Your task to perform on an android device: create a new album in the google photos Image 0: 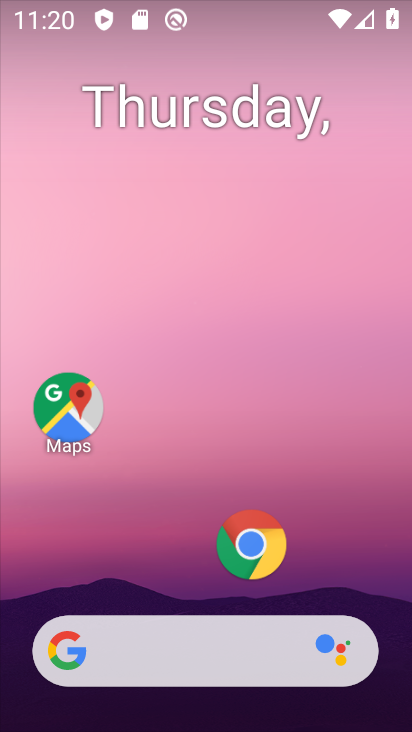
Step 0: drag from (185, 605) to (80, 31)
Your task to perform on an android device: create a new album in the google photos Image 1: 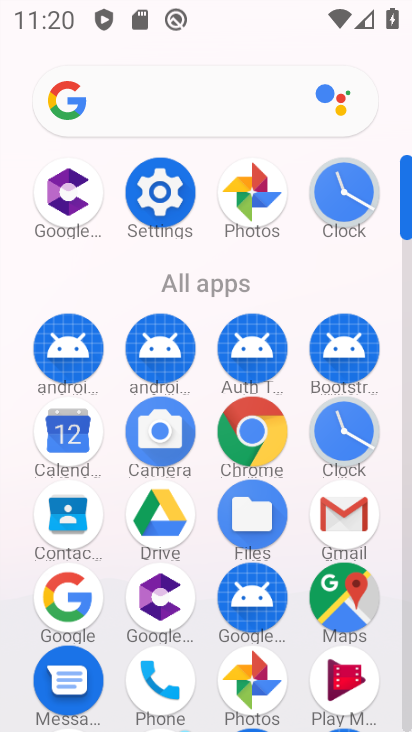
Step 1: click (257, 202)
Your task to perform on an android device: create a new album in the google photos Image 2: 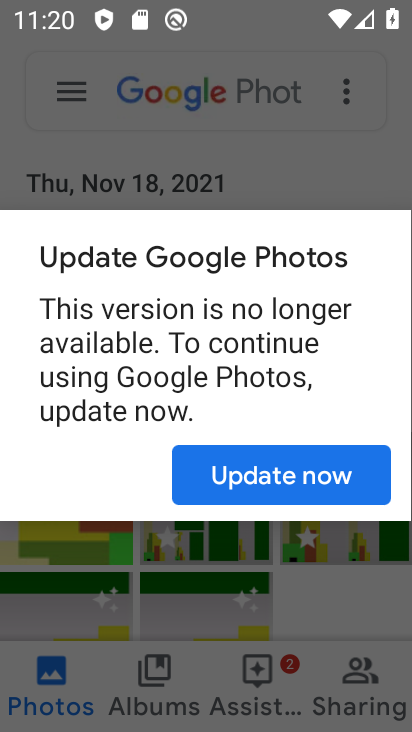
Step 2: click (327, 472)
Your task to perform on an android device: create a new album in the google photos Image 3: 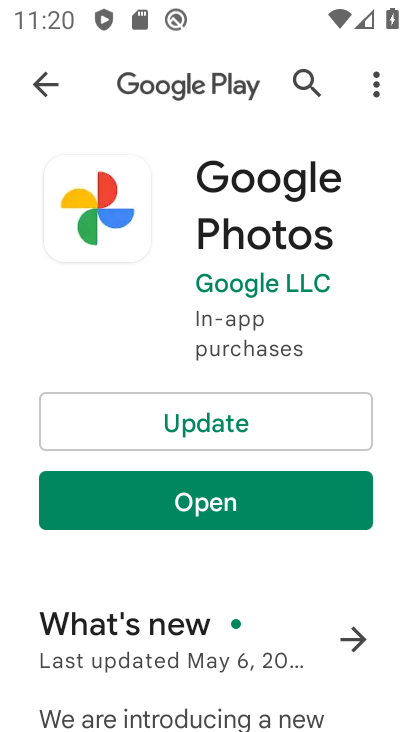
Step 3: click (297, 491)
Your task to perform on an android device: create a new album in the google photos Image 4: 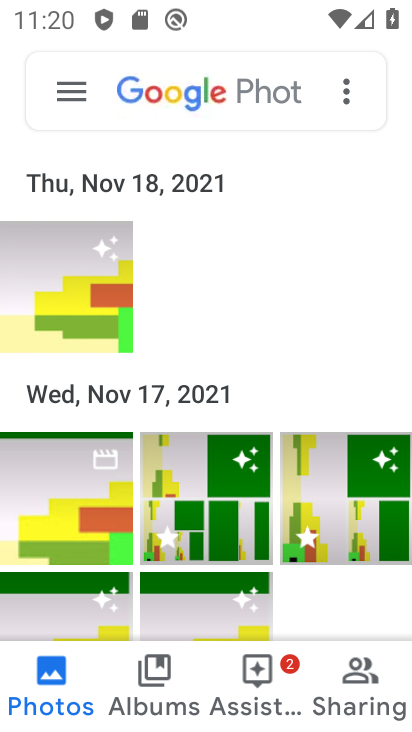
Step 4: click (72, 331)
Your task to perform on an android device: create a new album in the google photos Image 5: 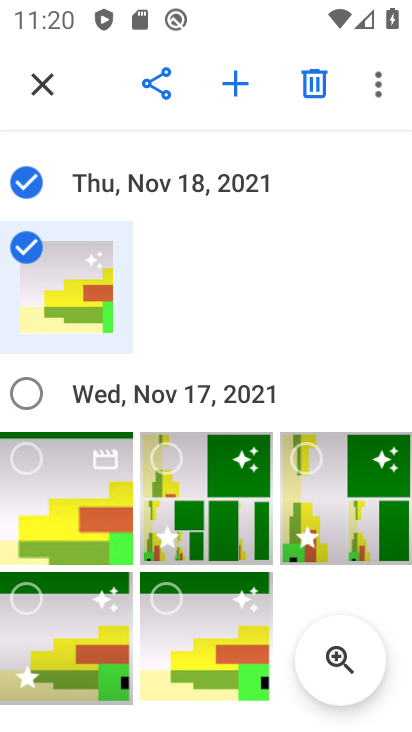
Step 5: click (61, 488)
Your task to perform on an android device: create a new album in the google photos Image 6: 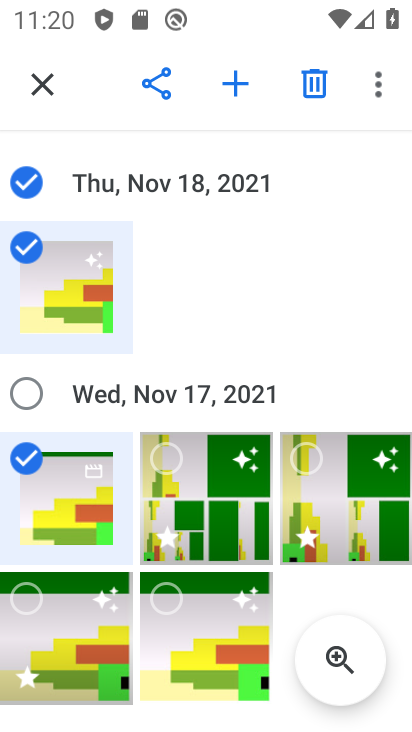
Step 6: click (225, 81)
Your task to perform on an android device: create a new album in the google photos Image 7: 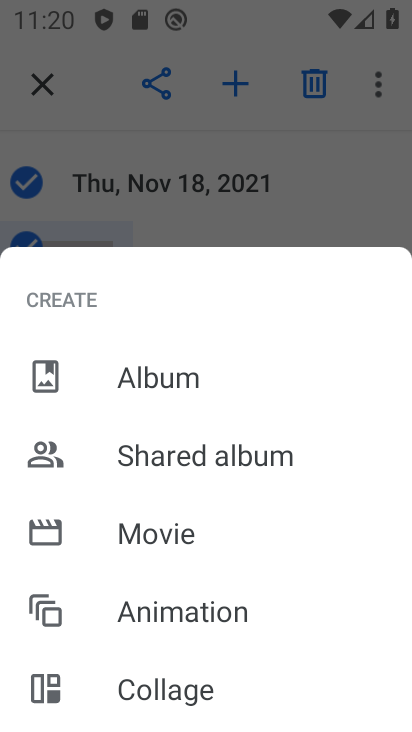
Step 7: click (187, 349)
Your task to perform on an android device: create a new album in the google photos Image 8: 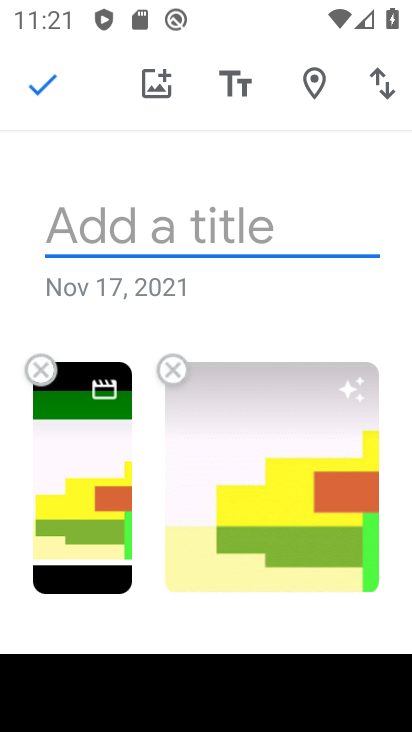
Step 8: type "ji"
Your task to perform on an android device: create a new album in the google photos Image 9: 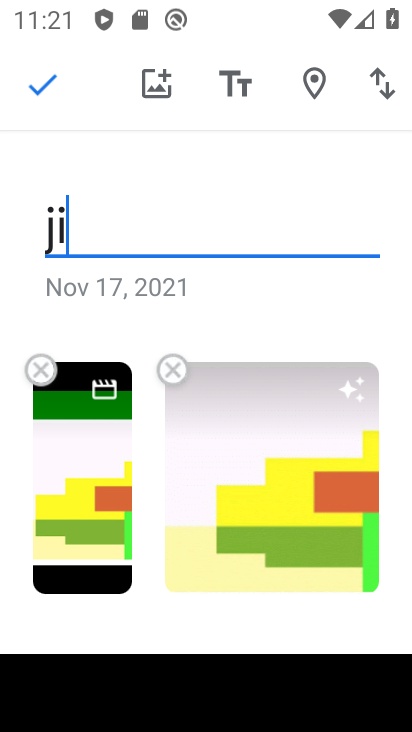
Step 9: click (50, 77)
Your task to perform on an android device: create a new album in the google photos Image 10: 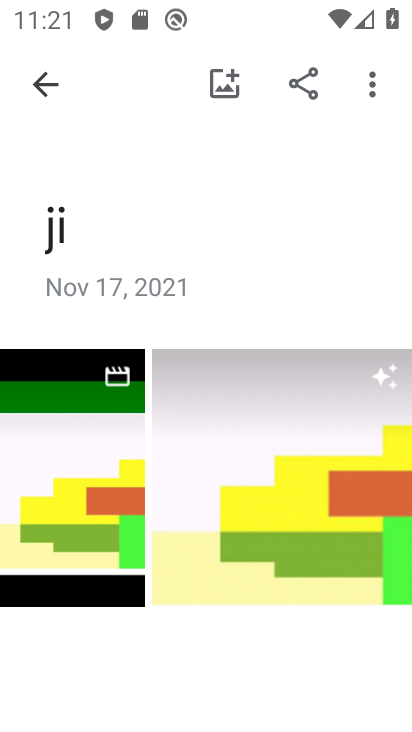
Step 10: task complete